Your task to perform on an android device: turn off location Image 0: 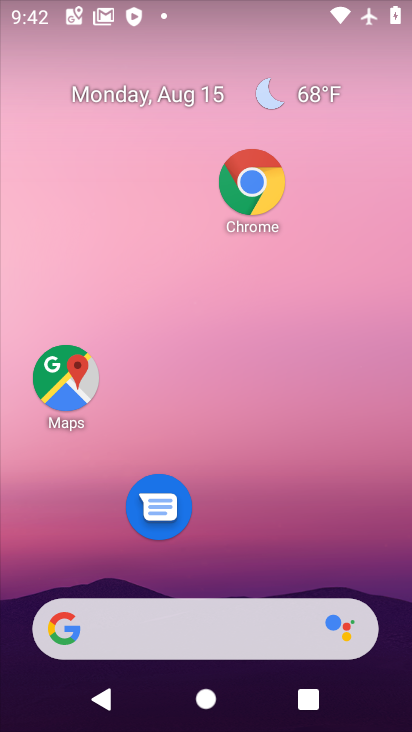
Step 0: drag from (273, 587) to (285, 145)
Your task to perform on an android device: turn off location Image 1: 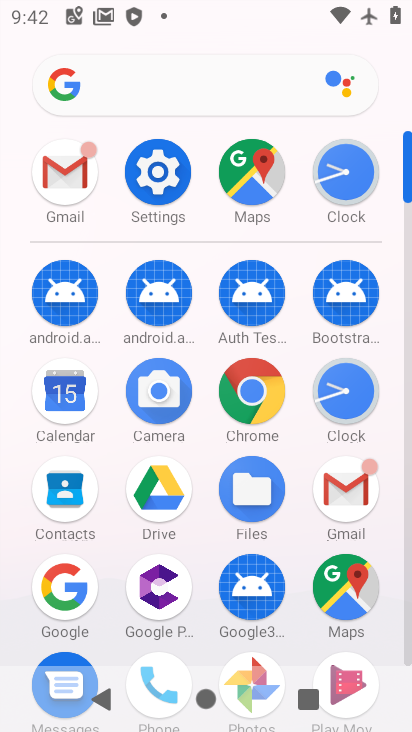
Step 1: click (143, 172)
Your task to perform on an android device: turn off location Image 2: 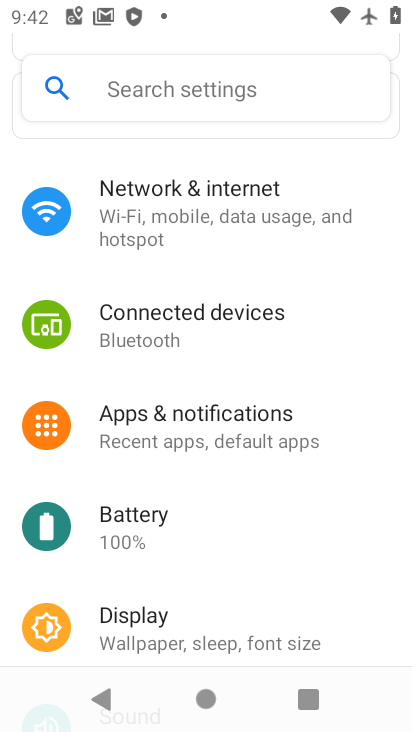
Step 2: drag from (212, 613) to (215, 150)
Your task to perform on an android device: turn off location Image 3: 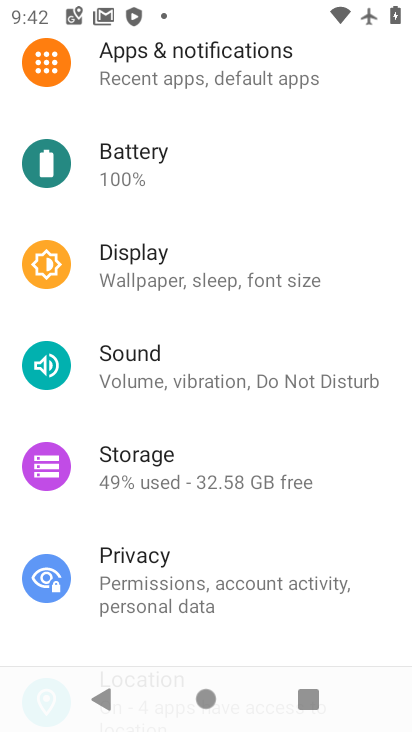
Step 3: drag from (171, 561) to (171, 303)
Your task to perform on an android device: turn off location Image 4: 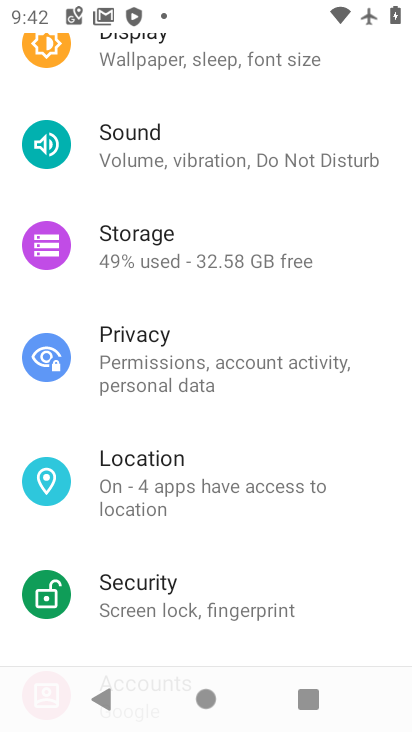
Step 4: click (201, 441)
Your task to perform on an android device: turn off location Image 5: 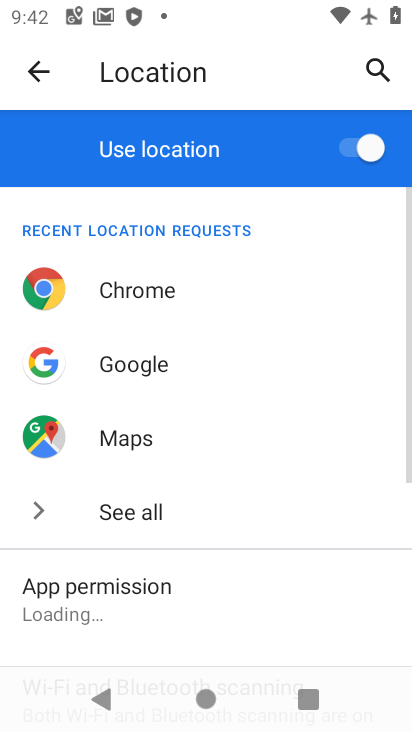
Step 5: task complete